Your task to perform on an android device: add a contact Image 0: 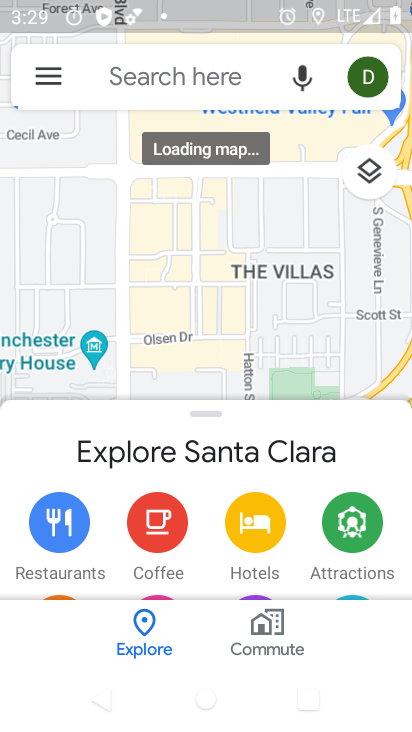
Step 0: press home button
Your task to perform on an android device: add a contact Image 1: 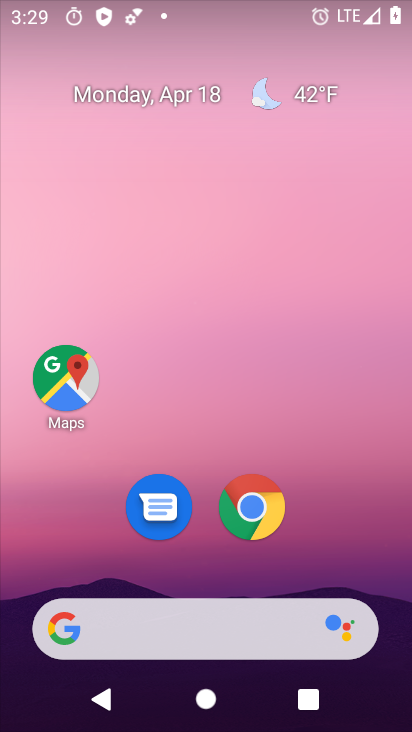
Step 1: drag from (358, 554) to (361, 149)
Your task to perform on an android device: add a contact Image 2: 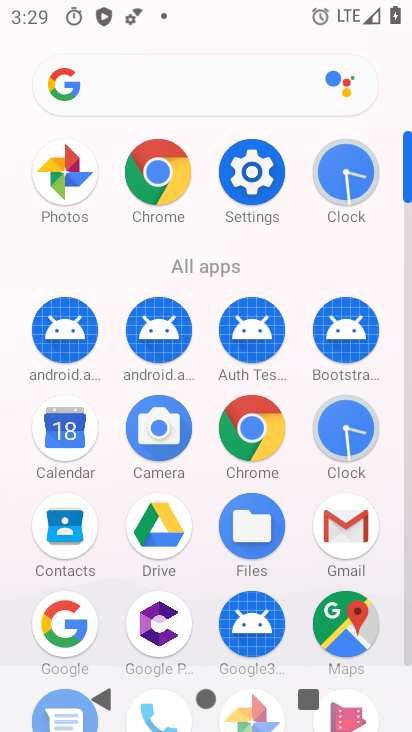
Step 2: drag from (200, 575) to (199, 255)
Your task to perform on an android device: add a contact Image 3: 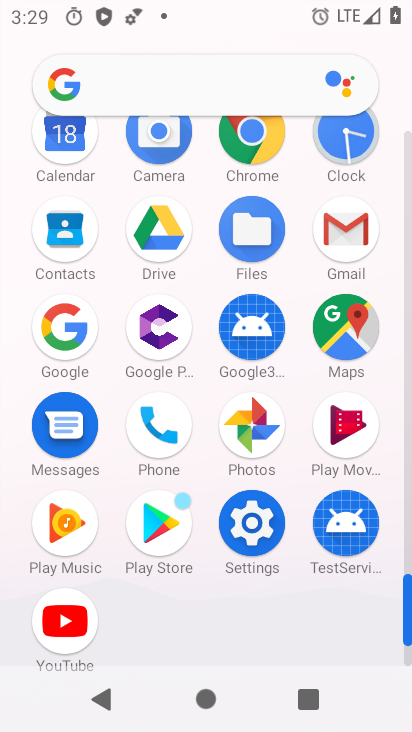
Step 3: click (78, 232)
Your task to perform on an android device: add a contact Image 4: 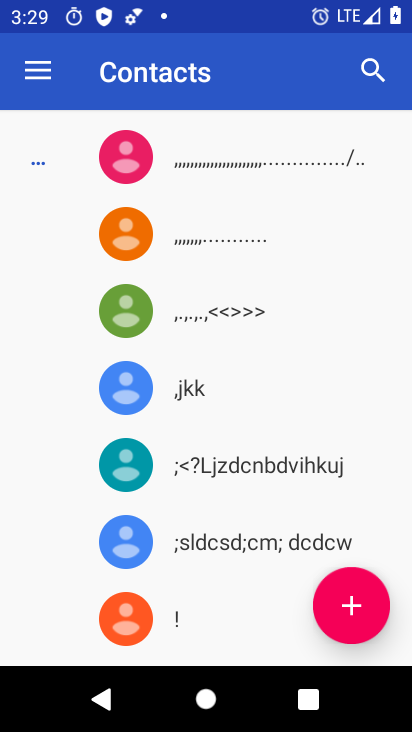
Step 4: click (343, 608)
Your task to perform on an android device: add a contact Image 5: 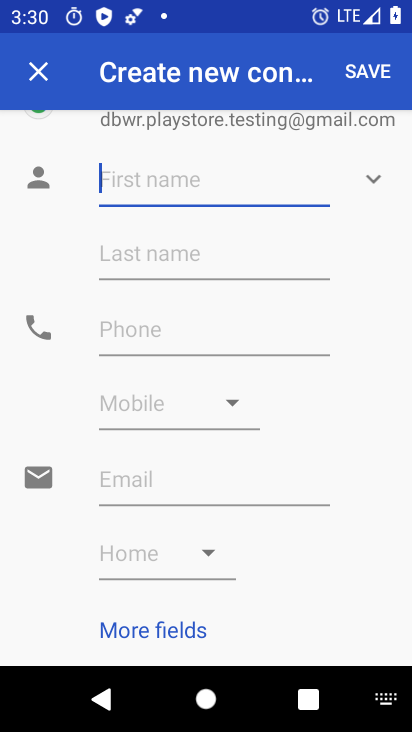
Step 5: type "anshul"
Your task to perform on an android device: add a contact Image 6: 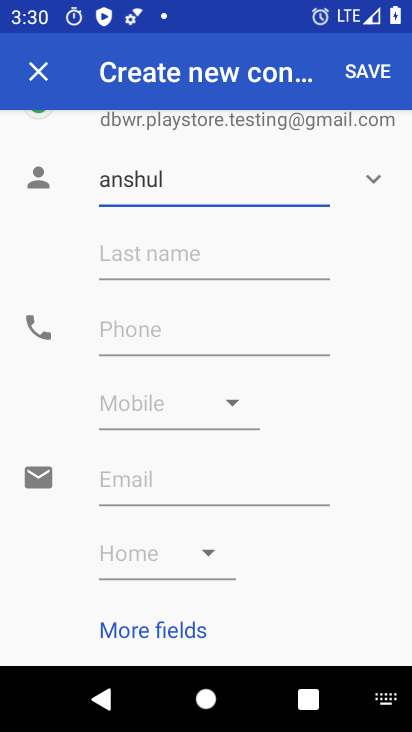
Step 6: click (156, 333)
Your task to perform on an android device: add a contact Image 7: 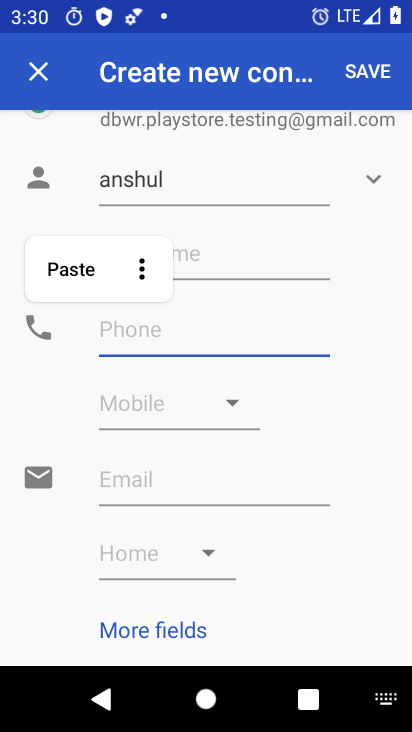
Step 7: type "7685375838"
Your task to perform on an android device: add a contact Image 8: 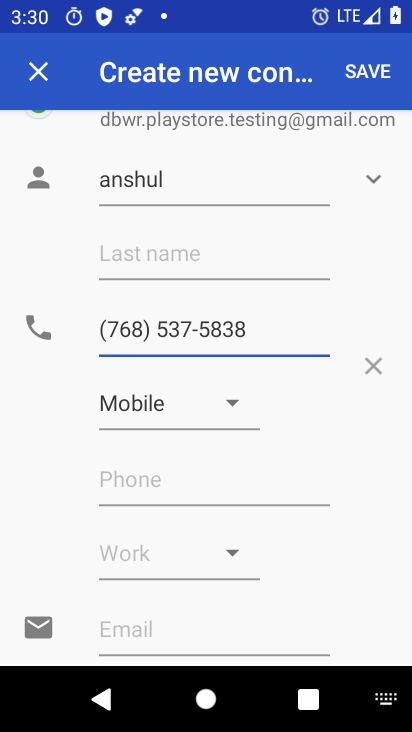
Step 8: click (353, 71)
Your task to perform on an android device: add a contact Image 9: 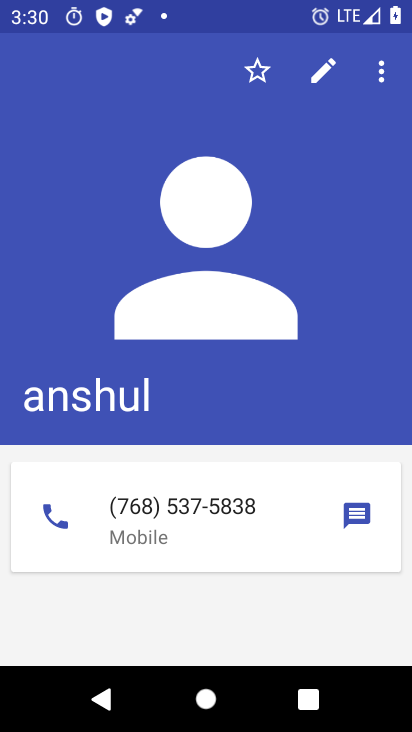
Step 9: task complete